Your task to perform on an android device: turn on showing notifications on the lock screen Image 0: 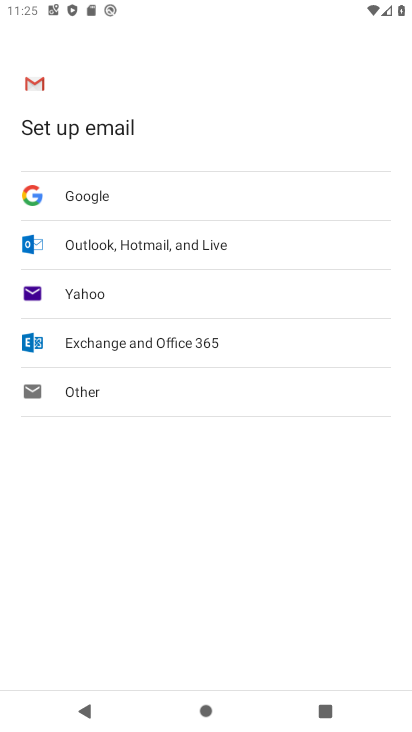
Step 0: press home button
Your task to perform on an android device: turn on showing notifications on the lock screen Image 1: 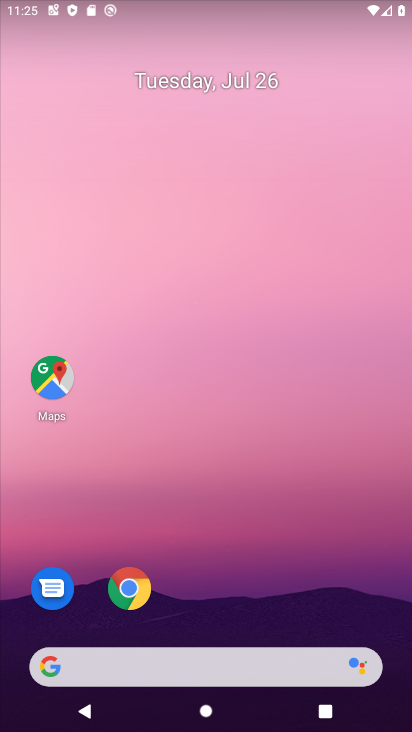
Step 1: drag from (284, 557) to (269, 204)
Your task to perform on an android device: turn on showing notifications on the lock screen Image 2: 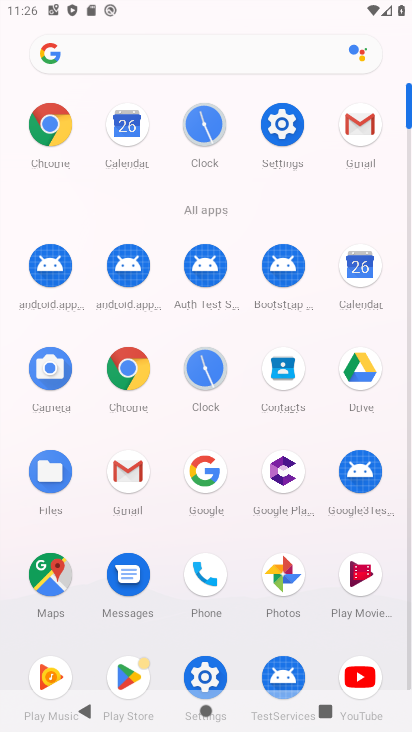
Step 2: click (282, 113)
Your task to perform on an android device: turn on showing notifications on the lock screen Image 3: 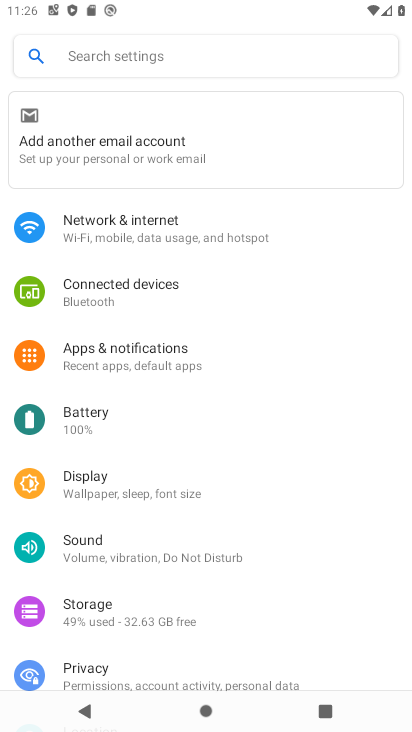
Step 3: click (124, 355)
Your task to perform on an android device: turn on showing notifications on the lock screen Image 4: 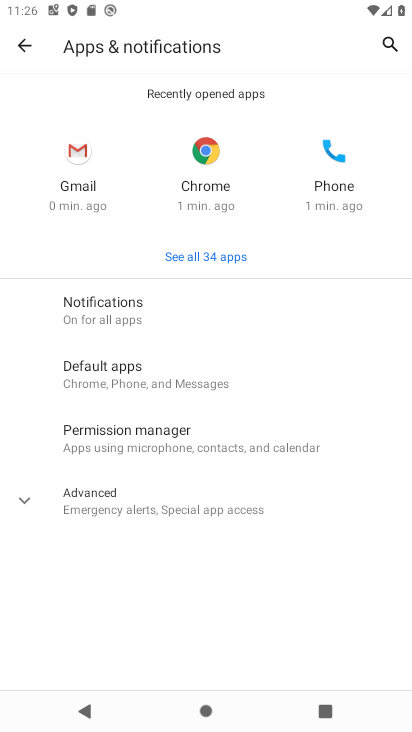
Step 4: task complete